Your task to perform on an android device: check data usage Image 0: 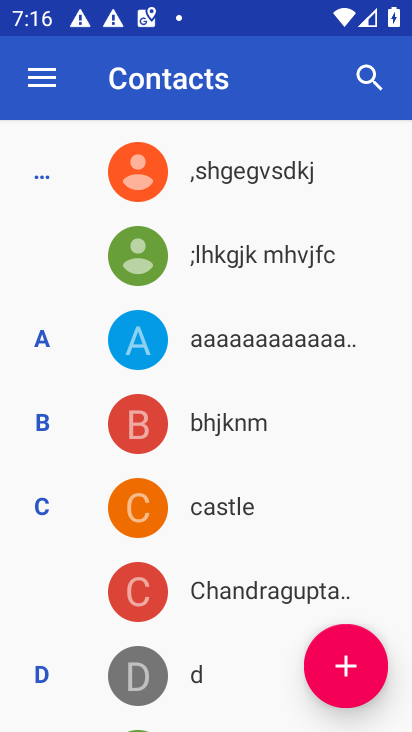
Step 0: press home button
Your task to perform on an android device: check data usage Image 1: 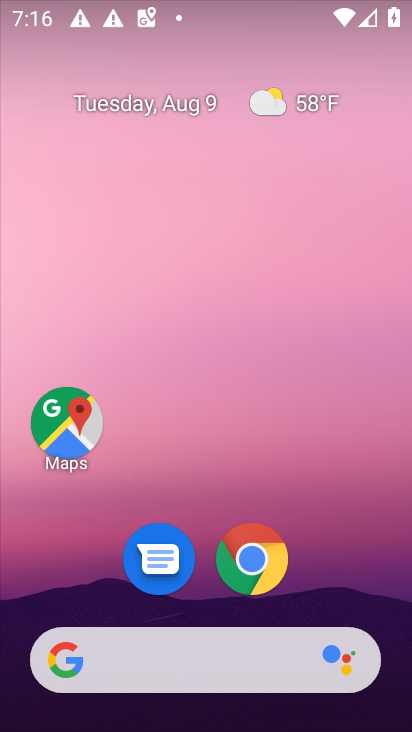
Step 1: drag from (201, 295) to (195, 113)
Your task to perform on an android device: check data usage Image 2: 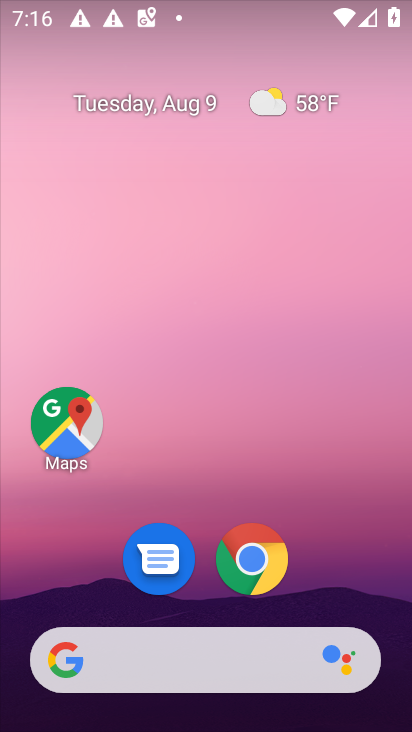
Step 2: drag from (195, 595) to (204, 62)
Your task to perform on an android device: check data usage Image 3: 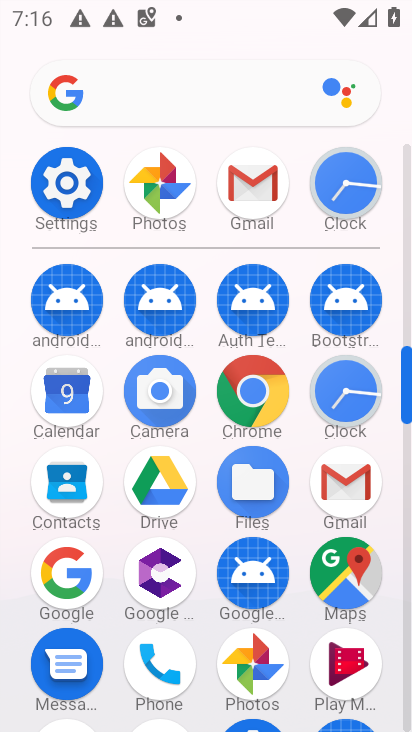
Step 3: click (58, 175)
Your task to perform on an android device: check data usage Image 4: 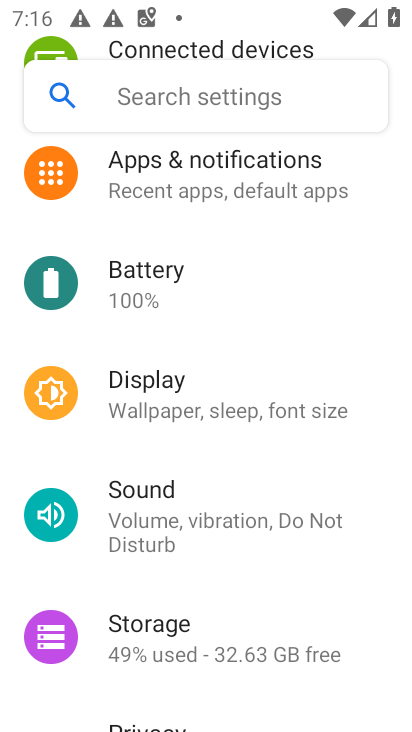
Step 4: drag from (211, 280) to (190, 724)
Your task to perform on an android device: check data usage Image 5: 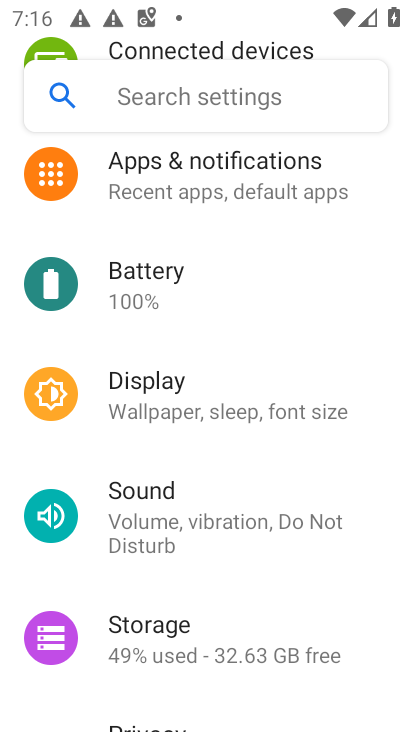
Step 5: drag from (237, 299) to (191, 663)
Your task to perform on an android device: check data usage Image 6: 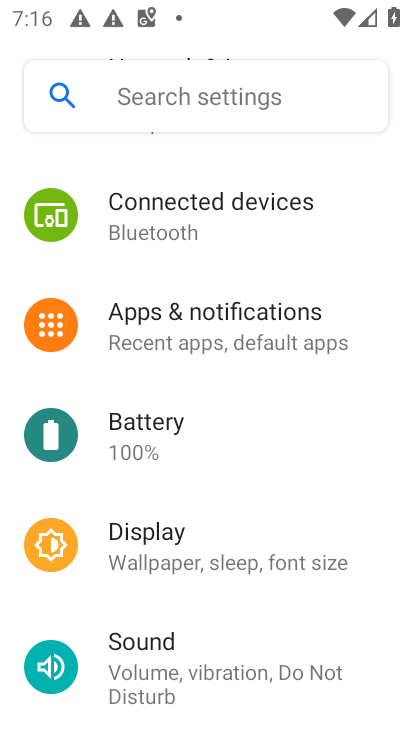
Step 6: drag from (267, 236) to (171, 669)
Your task to perform on an android device: check data usage Image 7: 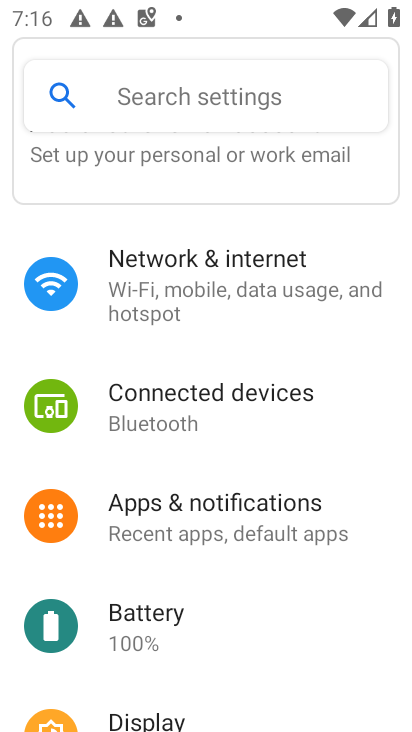
Step 7: click (173, 296)
Your task to perform on an android device: check data usage Image 8: 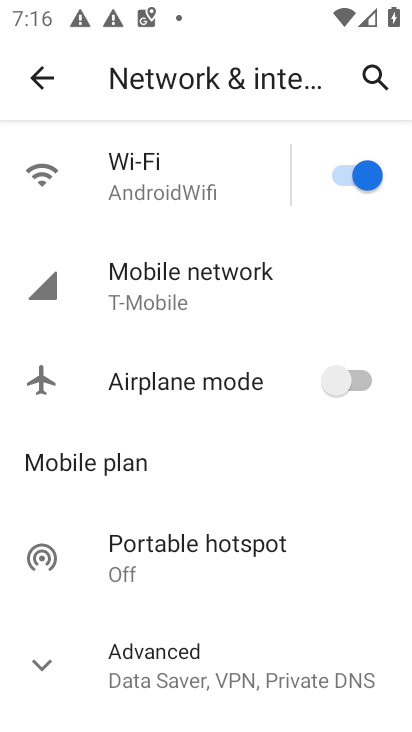
Step 8: click (161, 293)
Your task to perform on an android device: check data usage Image 9: 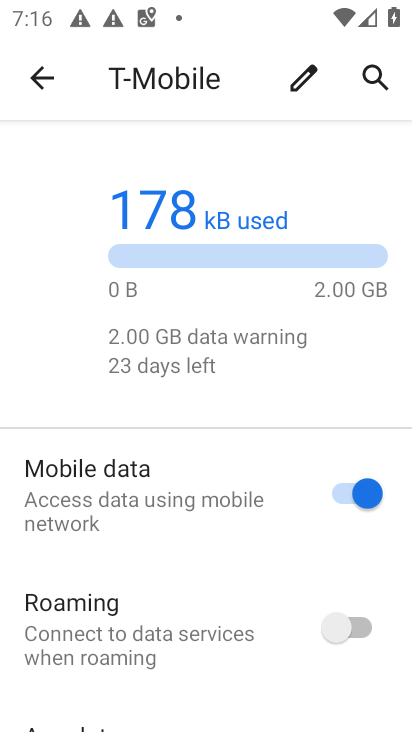
Step 9: task complete